Your task to perform on an android device: open sync settings in chrome Image 0: 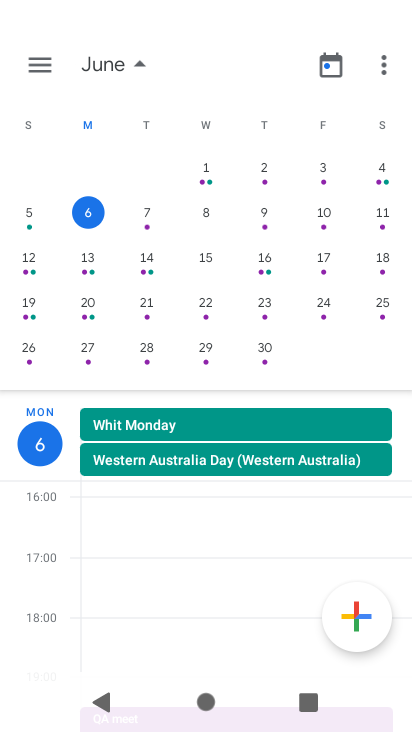
Step 0: press home button
Your task to perform on an android device: open sync settings in chrome Image 1: 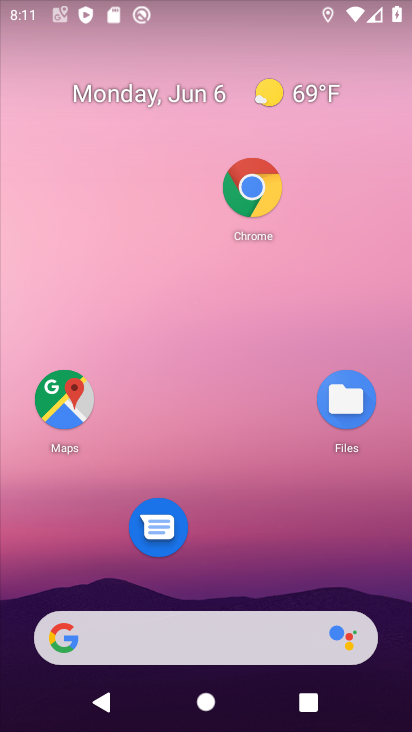
Step 1: click (252, 184)
Your task to perform on an android device: open sync settings in chrome Image 2: 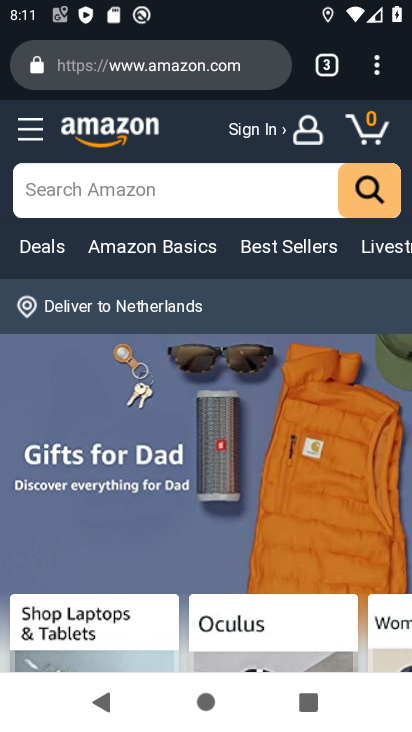
Step 2: click (364, 66)
Your task to perform on an android device: open sync settings in chrome Image 3: 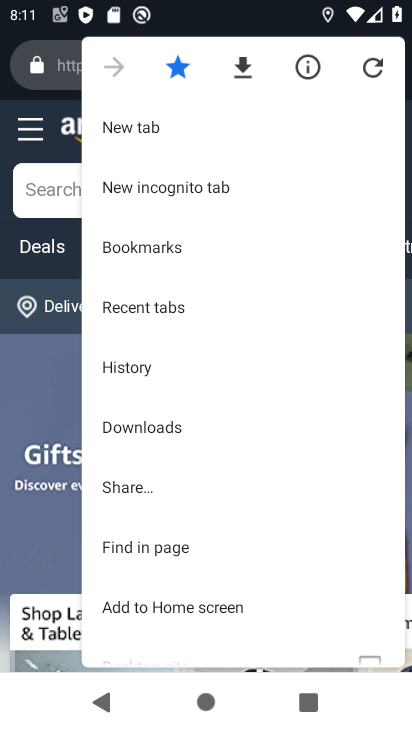
Step 3: drag from (238, 520) to (245, 136)
Your task to perform on an android device: open sync settings in chrome Image 4: 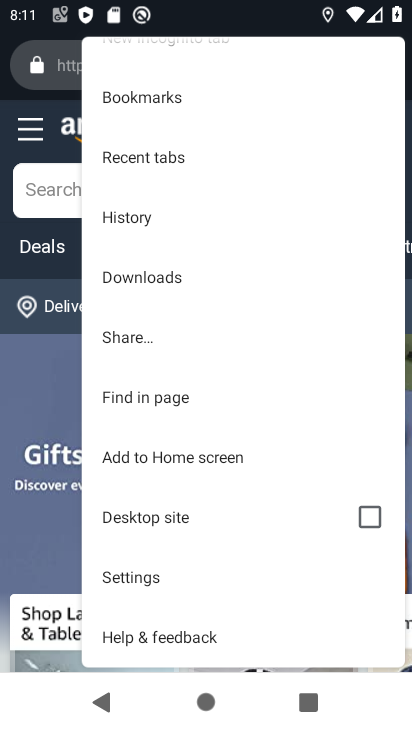
Step 4: click (175, 581)
Your task to perform on an android device: open sync settings in chrome Image 5: 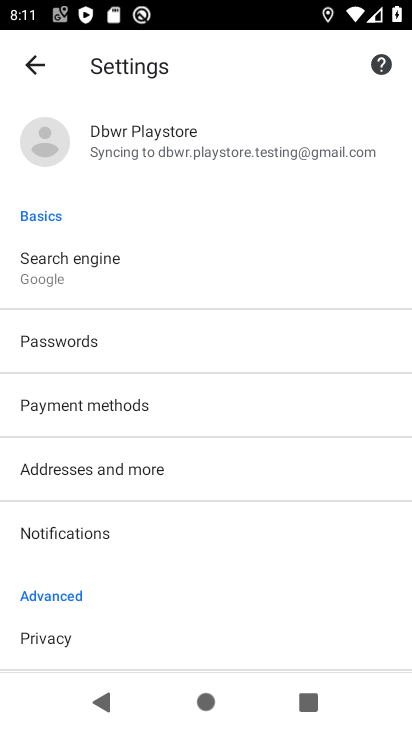
Step 5: drag from (200, 559) to (177, 231)
Your task to perform on an android device: open sync settings in chrome Image 6: 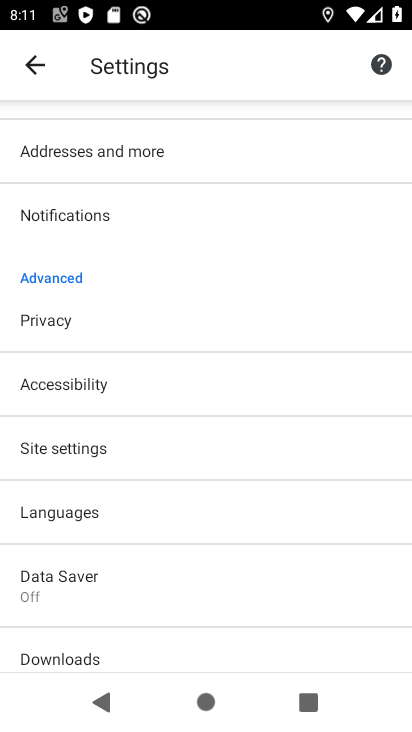
Step 6: click (90, 456)
Your task to perform on an android device: open sync settings in chrome Image 7: 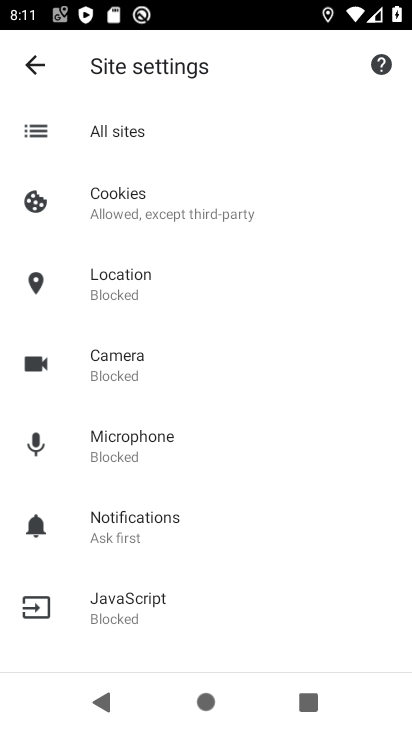
Step 7: drag from (229, 491) to (210, 296)
Your task to perform on an android device: open sync settings in chrome Image 8: 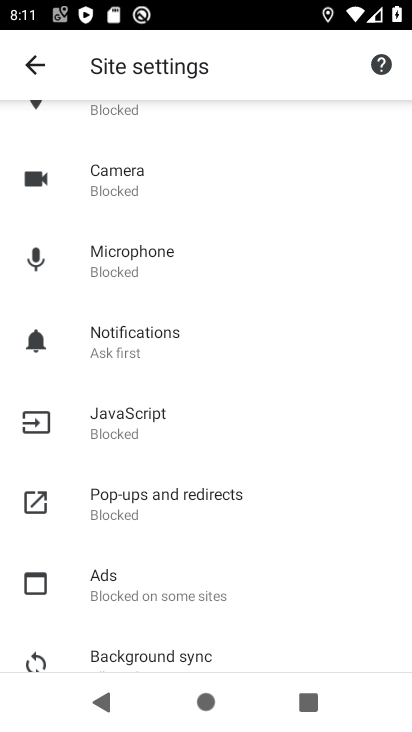
Step 8: click (167, 655)
Your task to perform on an android device: open sync settings in chrome Image 9: 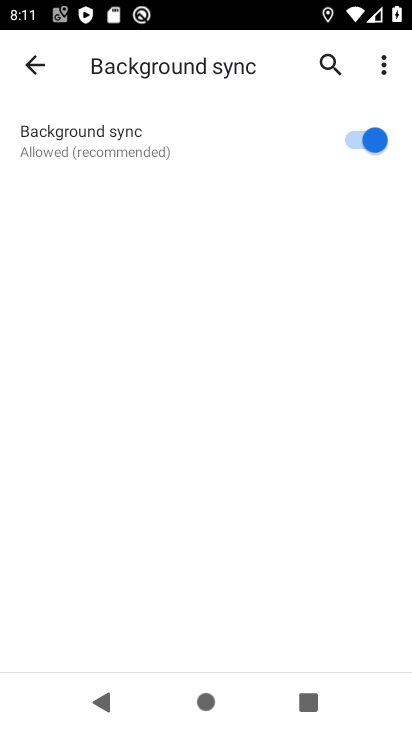
Step 9: task complete